Your task to perform on an android device: Open the stopwatch Image 0: 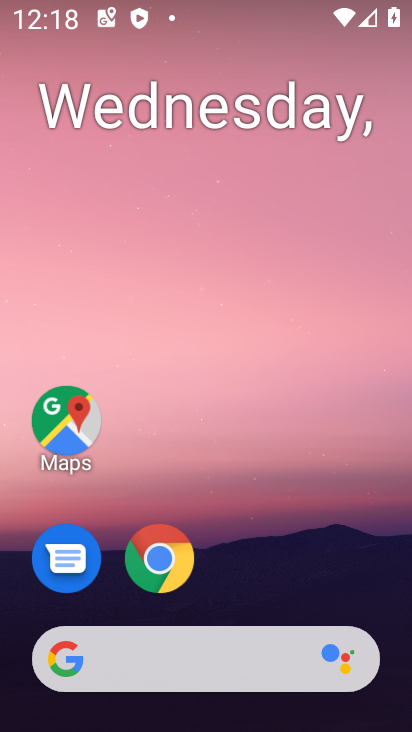
Step 0: drag from (251, 580) to (280, 9)
Your task to perform on an android device: Open the stopwatch Image 1: 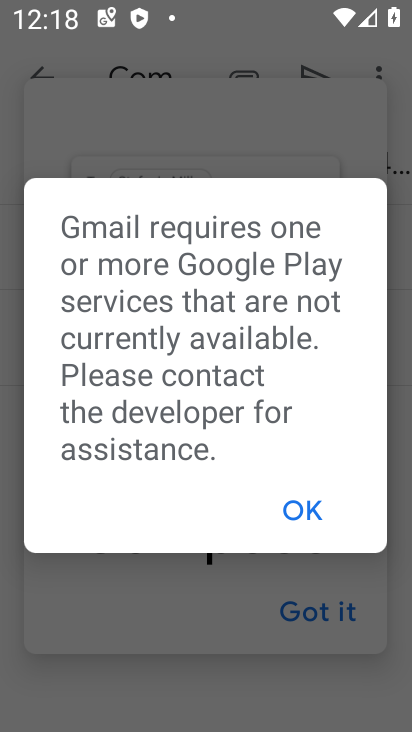
Step 1: click (297, 518)
Your task to perform on an android device: Open the stopwatch Image 2: 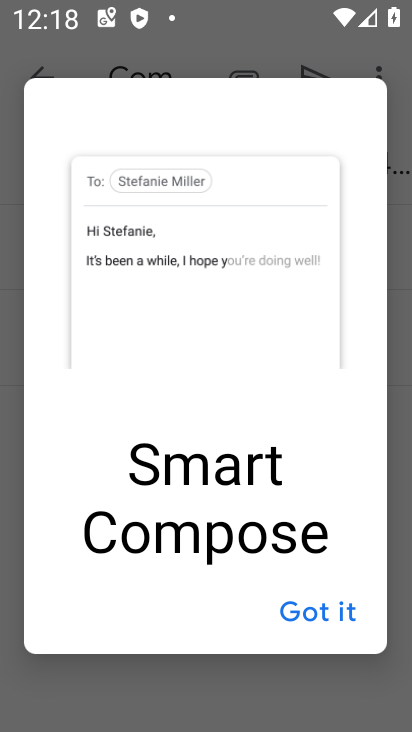
Step 2: press home button
Your task to perform on an android device: Open the stopwatch Image 3: 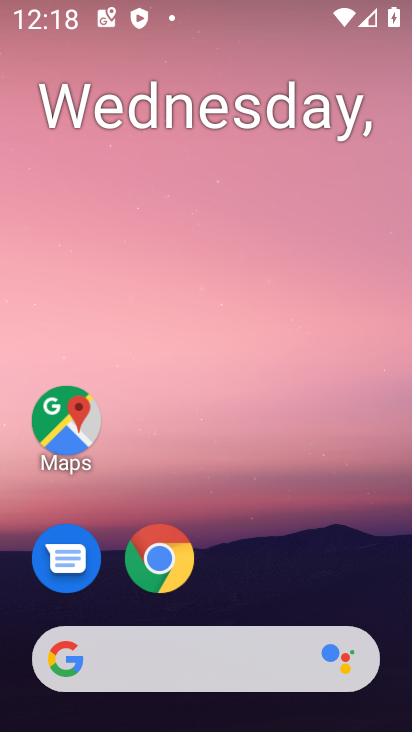
Step 3: drag from (316, 488) to (328, 10)
Your task to perform on an android device: Open the stopwatch Image 4: 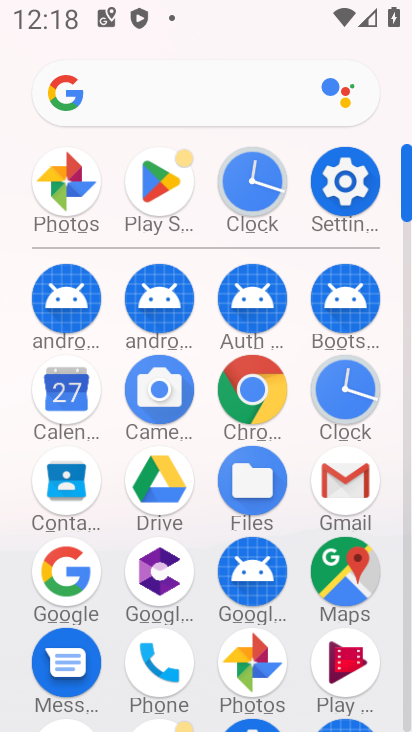
Step 4: click (255, 211)
Your task to perform on an android device: Open the stopwatch Image 5: 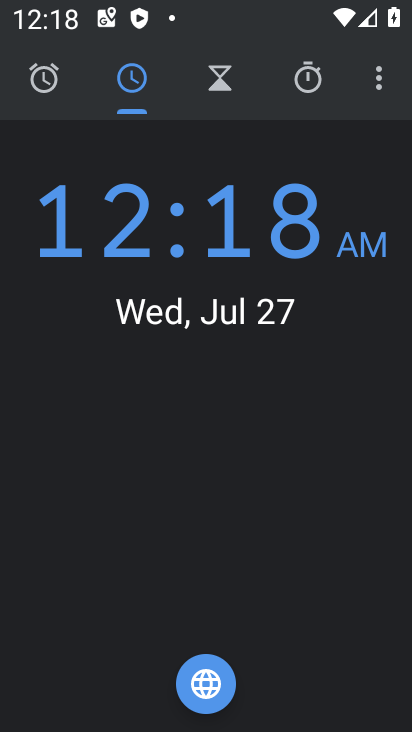
Step 5: click (304, 69)
Your task to perform on an android device: Open the stopwatch Image 6: 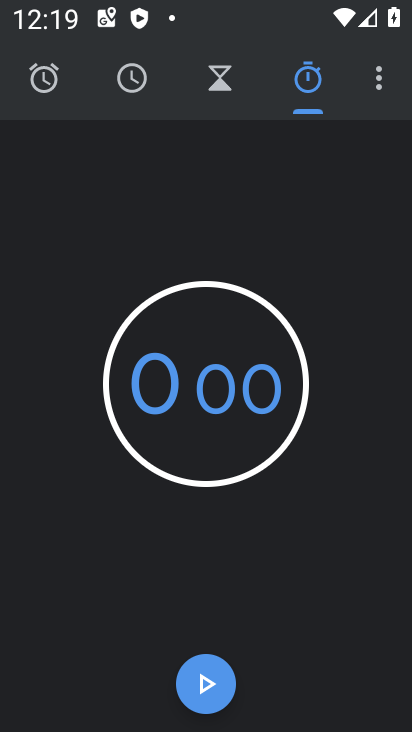
Step 6: task complete